Your task to perform on an android device: visit the assistant section in the google photos Image 0: 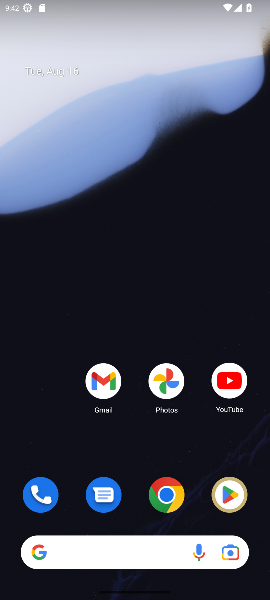
Step 0: drag from (61, 355) to (64, 10)
Your task to perform on an android device: visit the assistant section in the google photos Image 1: 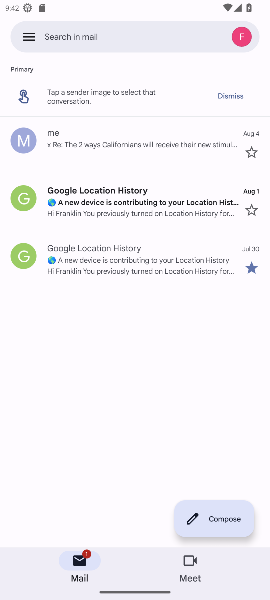
Step 1: press home button
Your task to perform on an android device: visit the assistant section in the google photos Image 2: 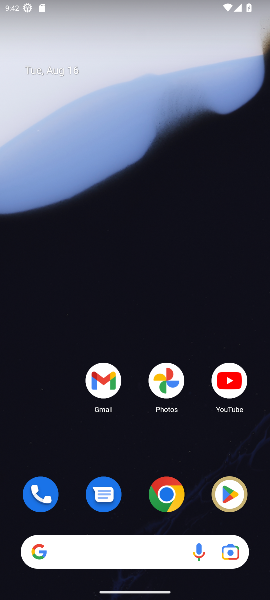
Step 2: drag from (49, 421) to (51, 13)
Your task to perform on an android device: visit the assistant section in the google photos Image 3: 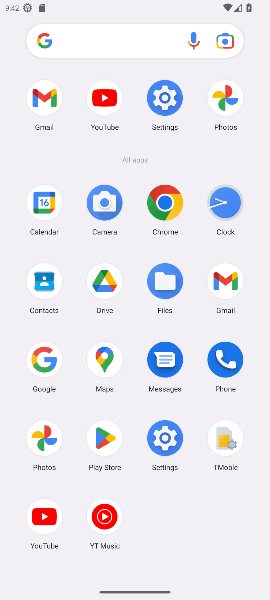
Step 3: click (40, 459)
Your task to perform on an android device: visit the assistant section in the google photos Image 4: 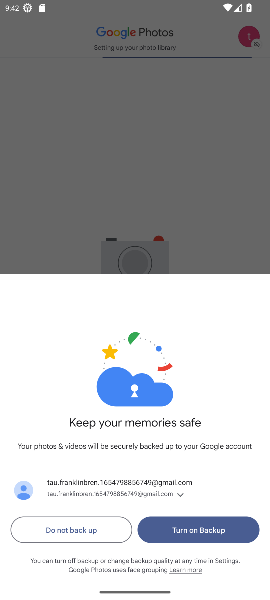
Step 4: click (101, 520)
Your task to perform on an android device: visit the assistant section in the google photos Image 5: 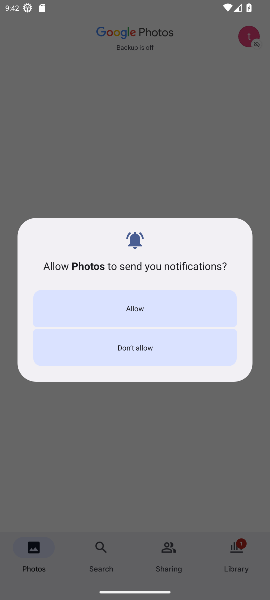
Step 5: click (159, 294)
Your task to perform on an android device: visit the assistant section in the google photos Image 6: 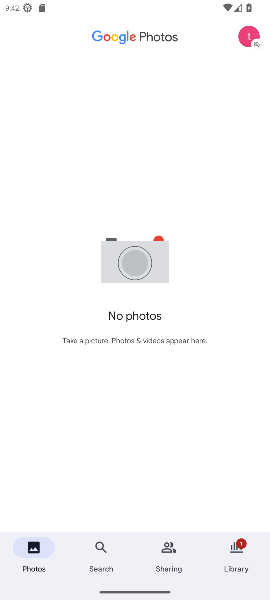
Step 6: task complete